Your task to perform on an android device: add a contact Image 0: 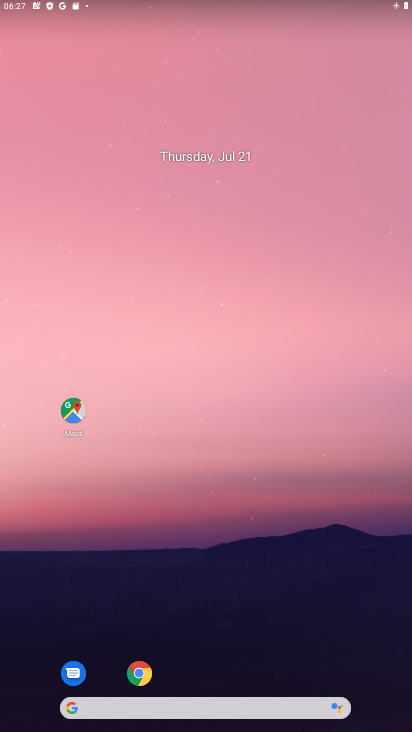
Step 0: drag from (192, 656) to (192, 106)
Your task to perform on an android device: add a contact Image 1: 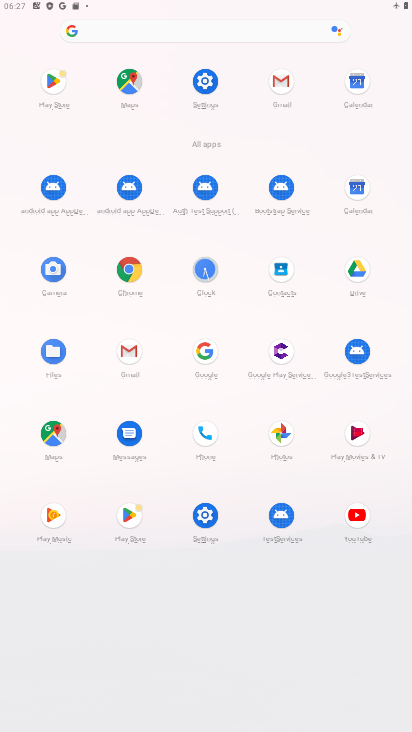
Step 1: click (281, 290)
Your task to perform on an android device: add a contact Image 2: 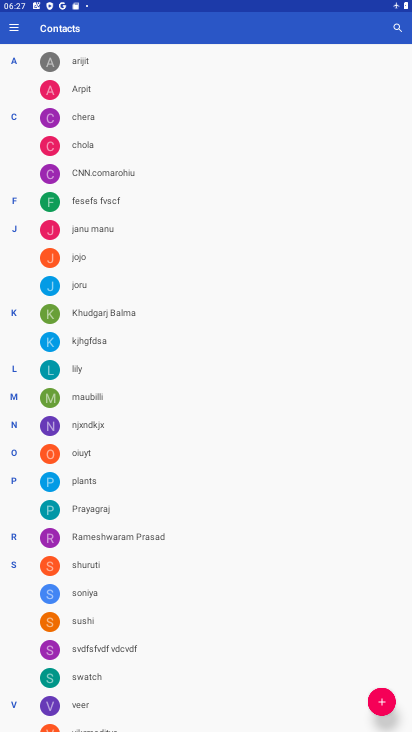
Step 2: click (380, 706)
Your task to perform on an android device: add a contact Image 3: 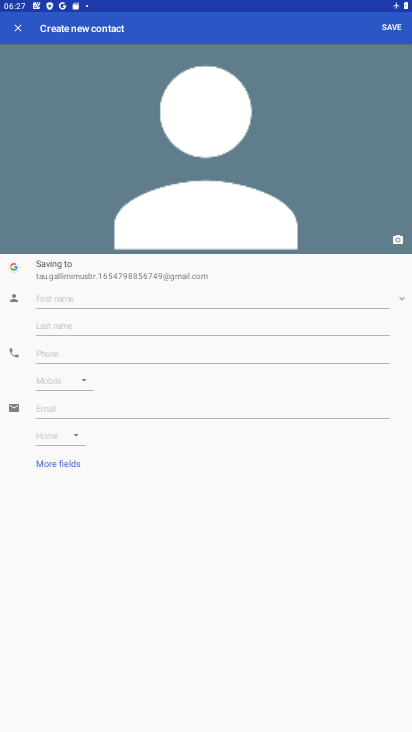
Step 3: click (143, 298)
Your task to perform on an android device: add a contact Image 4: 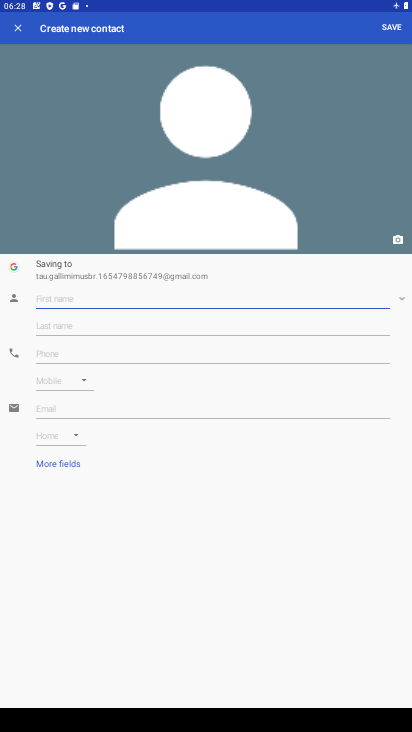
Step 4: type "Avina"
Your task to perform on an android device: add a contact Image 5: 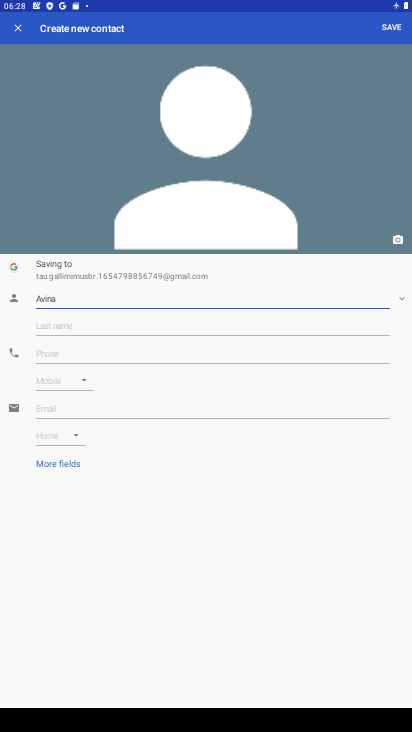
Step 5: click (110, 345)
Your task to perform on an android device: add a contact Image 6: 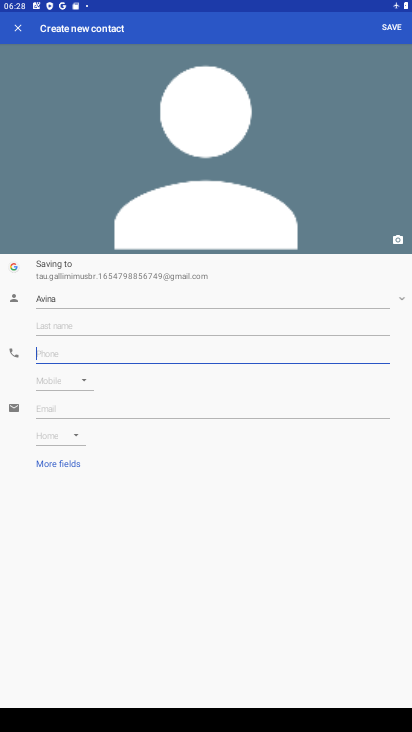
Step 6: type "6789098766"
Your task to perform on an android device: add a contact Image 7: 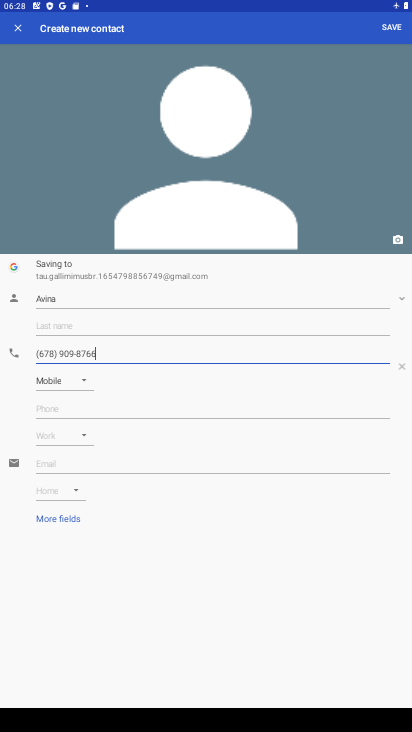
Step 7: click (388, 29)
Your task to perform on an android device: add a contact Image 8: 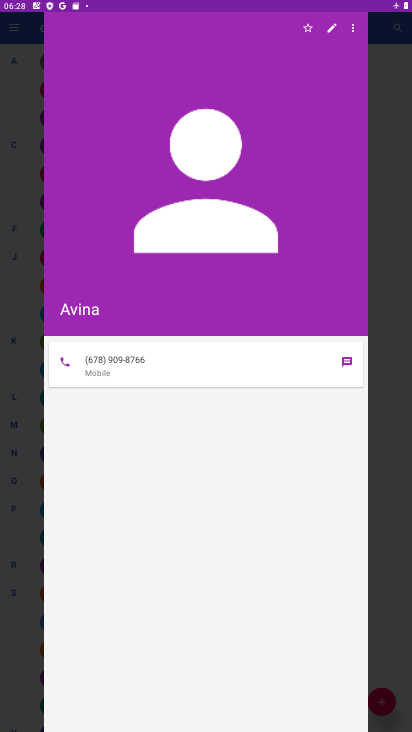
Step 8: task complete